Your task to perform on an android device: Open maps Image 0: 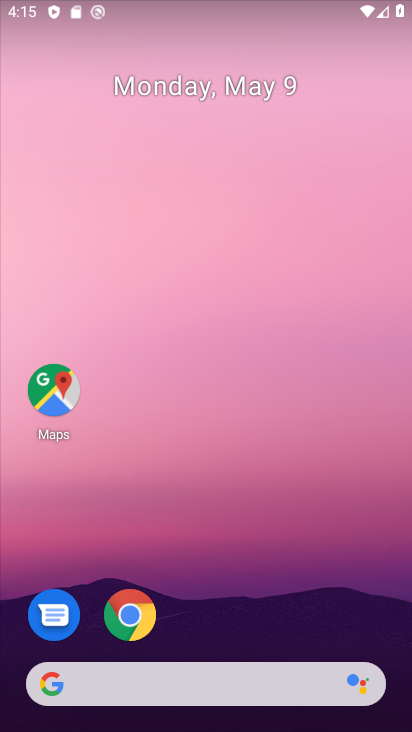
Step 0: click (67, 391)
Your task to perform on an android device: Open maps Image 1: 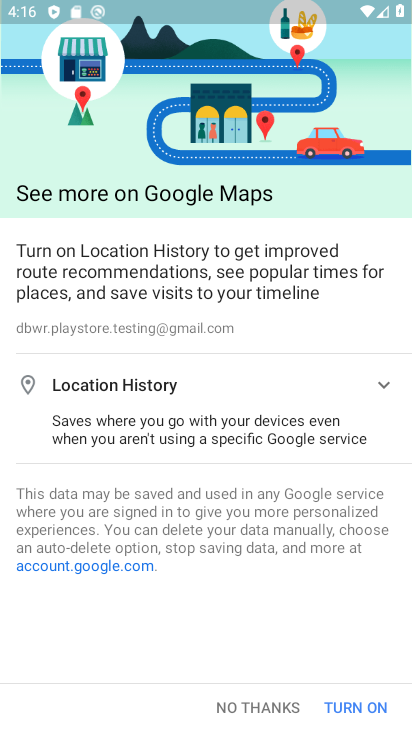
Step 1: click (293, 708)
Your task to perform on an android device: Open maps Image 2: 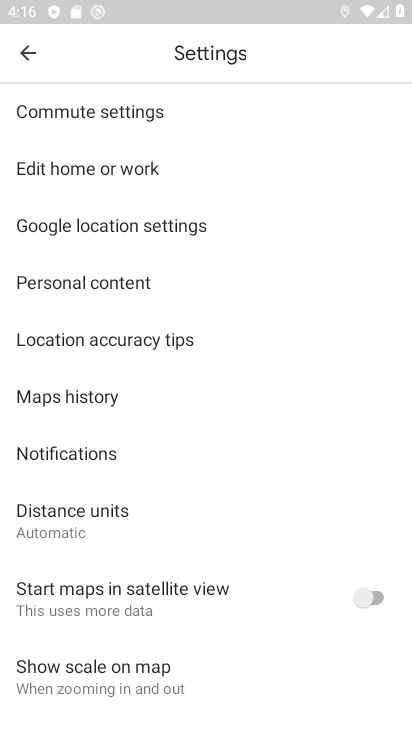
Step 2: click (48, 56)
Your task to perform on an android device: Open maps Image 3: 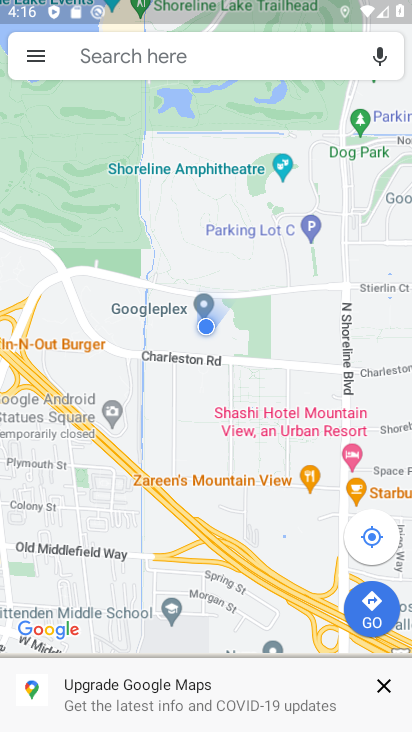
Step 3: task complete